Your task to perform on an android device: Open Google Maps Image 0: 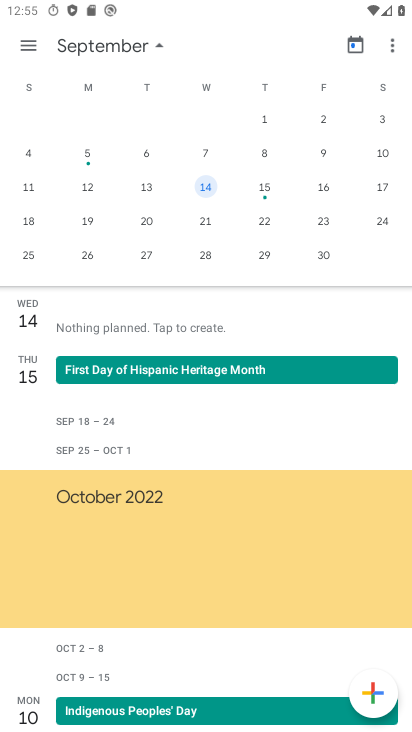
Step 0: press home button
Your task to perform on an android device: Open Google Maps Image 1: 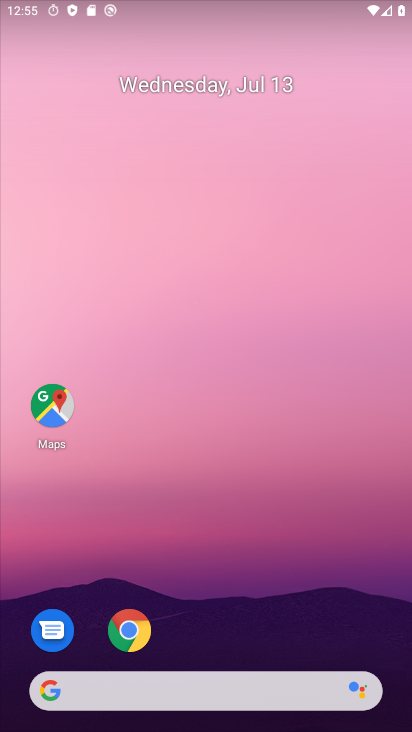
Step 1: drag from (292, 541) to (408, 182)
Your task to perform on an android device: Open Google Maps Image 2: 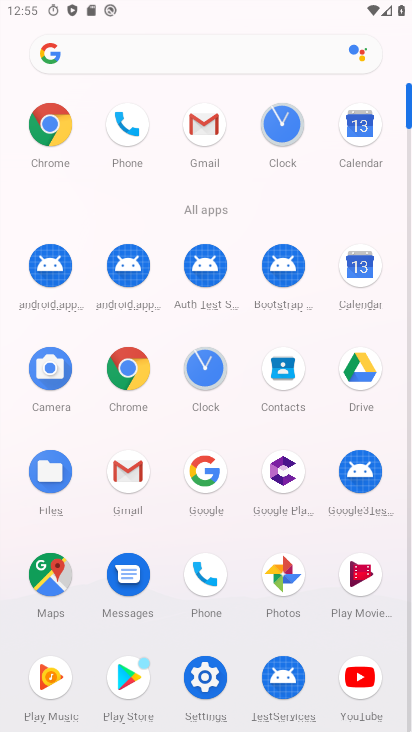
Step 2: drag from (392, 643) to (401, 250)
Your task to perform on an android device: Open Google Maps Image 3: 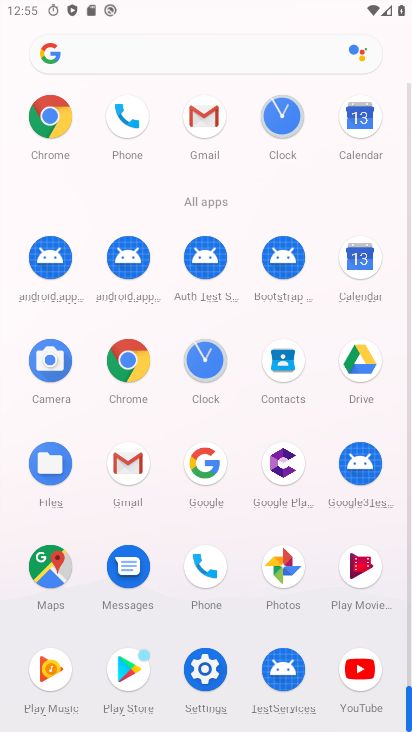
Step 3: drag from (403, 635) to (391, 372)
Your task to perform on an android device: Open Google Maps Image 4: 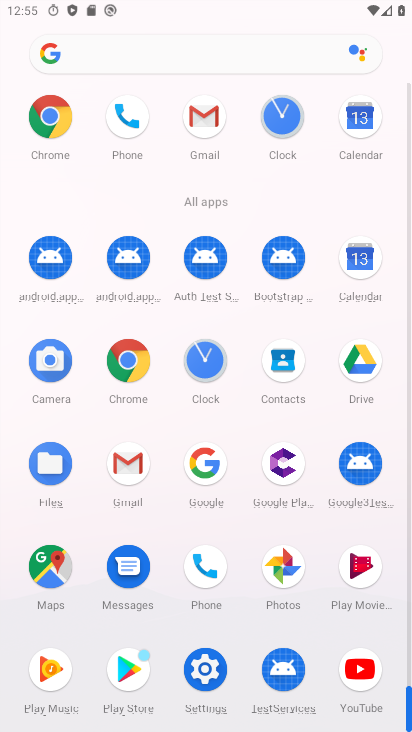
Step 4: click (33, 568)
Your task to perform on an android device: Open Google Maps Image 5: 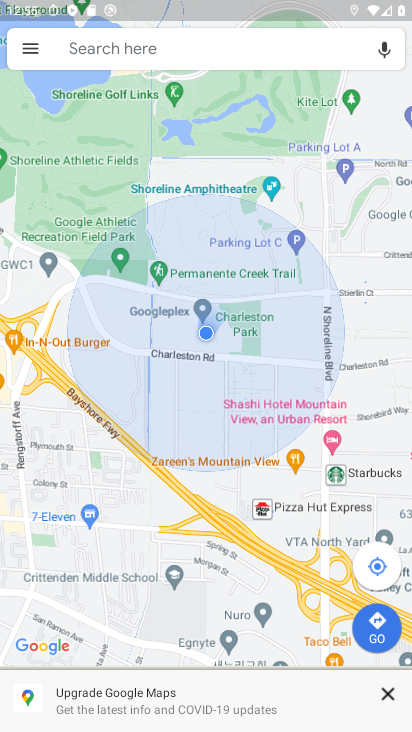
Step 5: task complete